Your task to perform on an android device: Open Yahoo.com Image 0: 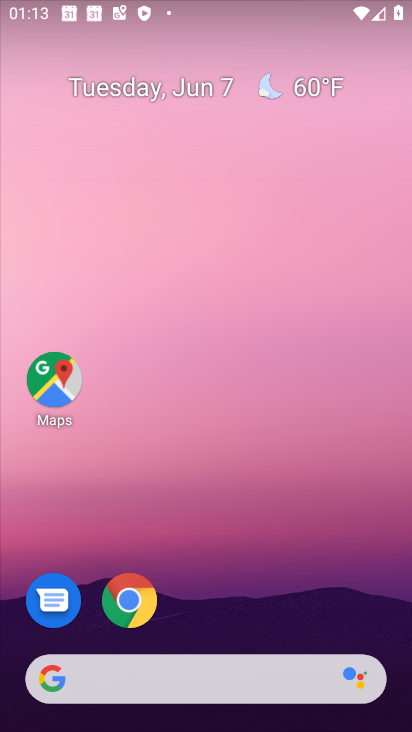
Step 0: click (128, 603)
Your task to perform on an android device: Open Yahoo.com Image 1: 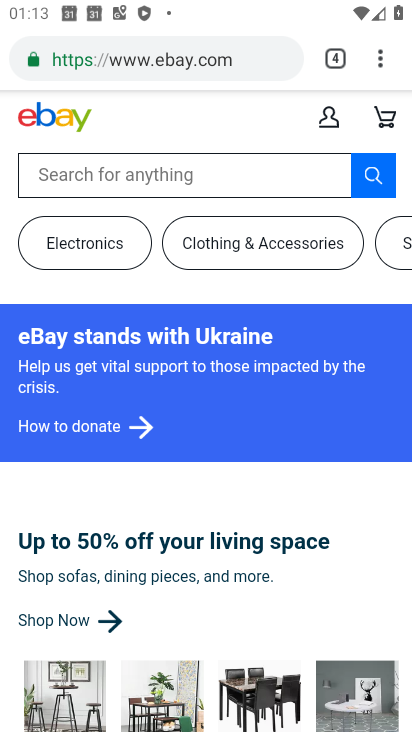
Step 1: click (380, 64)
Your task to perform on an android device: Open Yahoo.com Image 2: 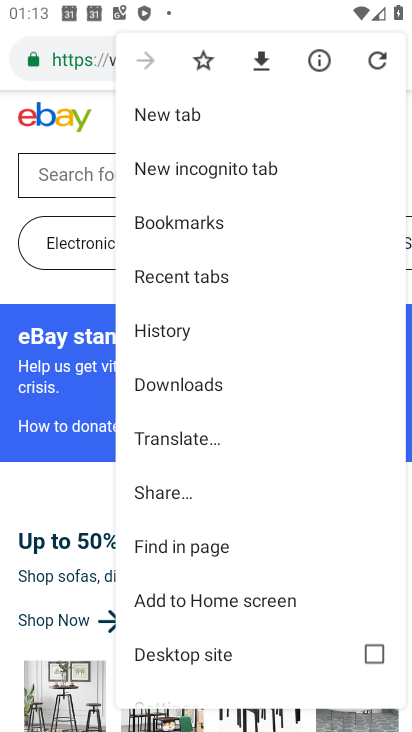
Step 2: click (156, 114)
Your task to perform on an android device: Open Yahoo.com Image 3: 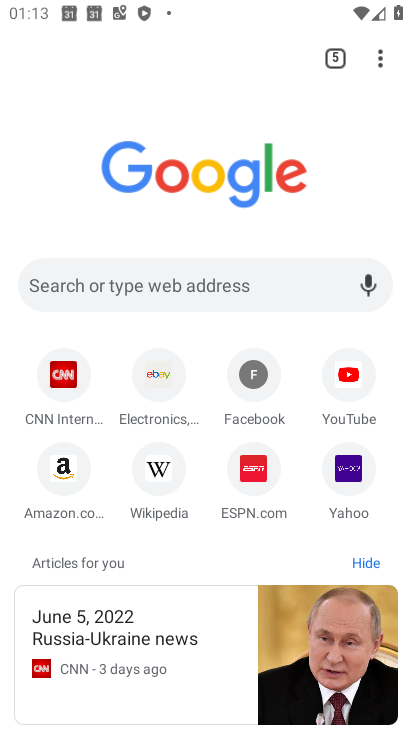
Step 3: click (353, 463)
Your task to perform on an android device: Open Yahoo.com Image 4: 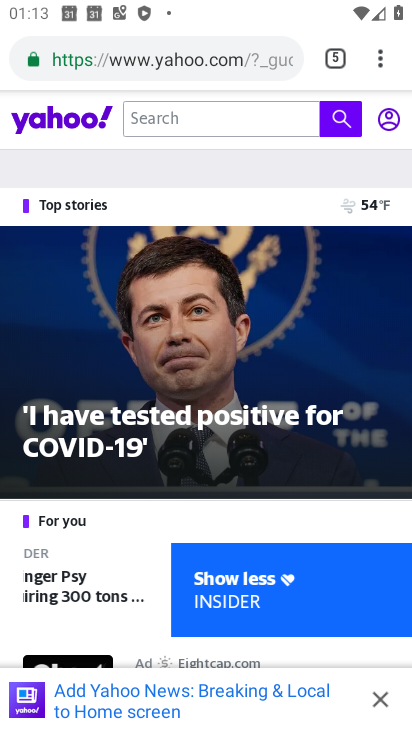
Step 4: task complete